Your task to perform on an android device: Turn off the flashlight Image 0: 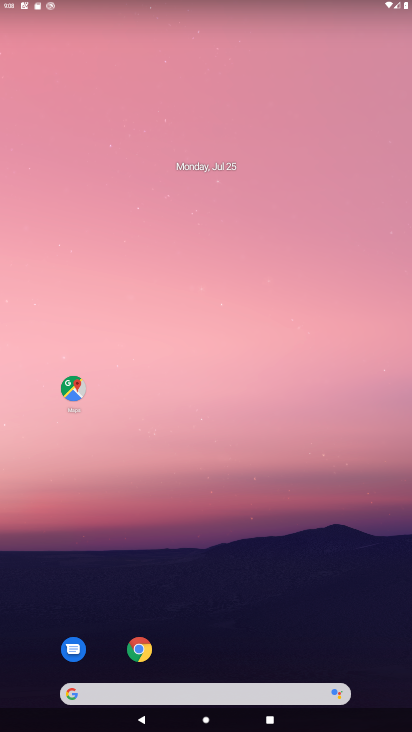
Step 0: drag from (259, 652) to (143, 80)
Your task to perform on an android device: Turn off the flashlight Image 1: 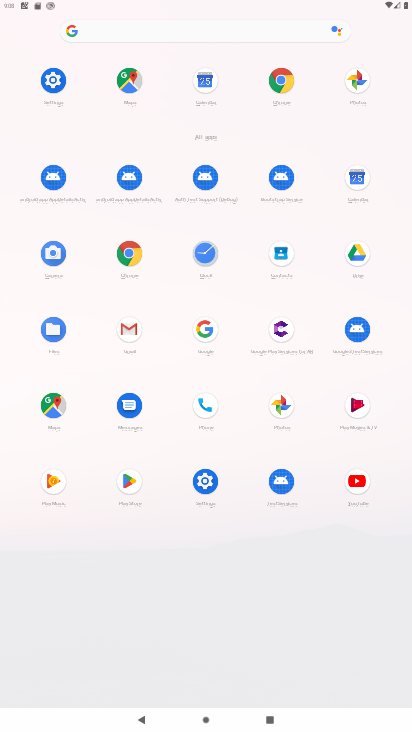
Step 1: click (53, 74)
Your task to perform on an android device: Turn off the flashlight Image 2: 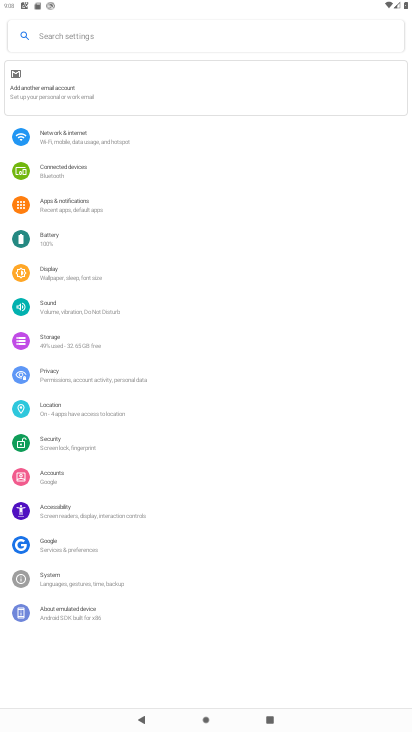
Step 2: task complete